Your task to perform on an android device: check battery use Image 0: 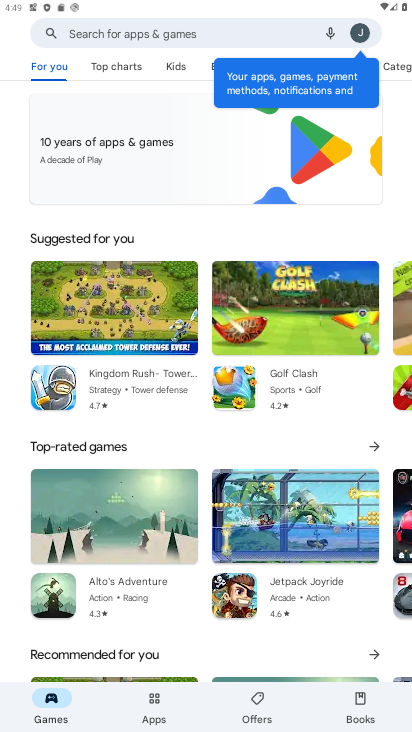
Step 0: press home button
Your task to perform on an android device: check battery use Image 1: 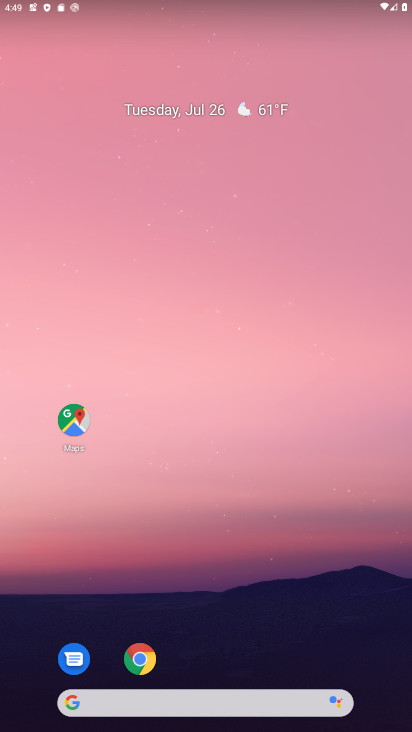
Step 1: drag from (272, 527) to (253, 93)
Your task to perform on an android device: check battery use Image 2: 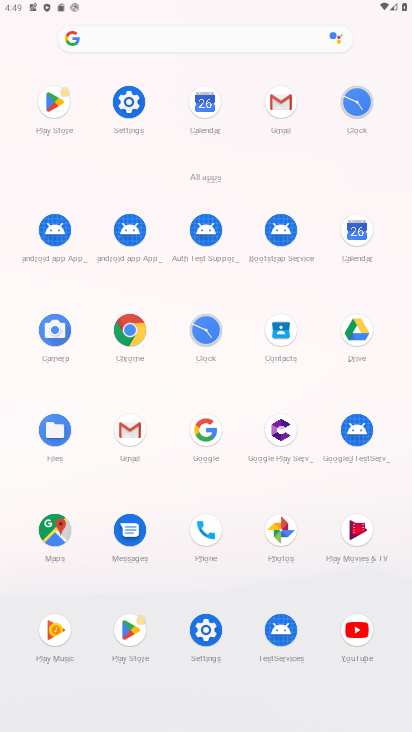
Step 2: click (134, 102)
Your task to perform on an android device: check battery use Image 3: 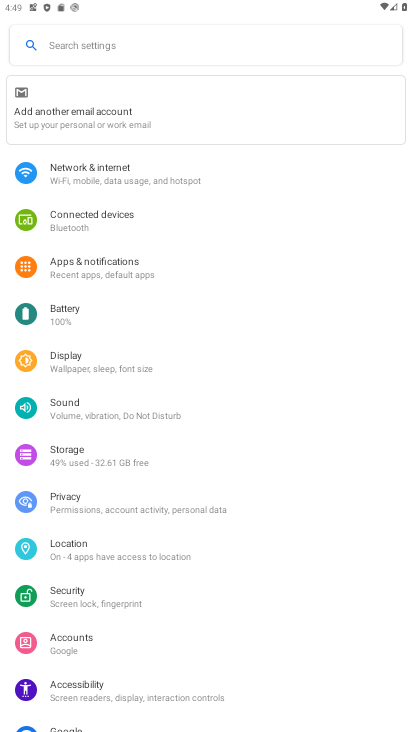
Step 3: click (79, 322)
Your task to perform on an android device: check battery use Image 4: 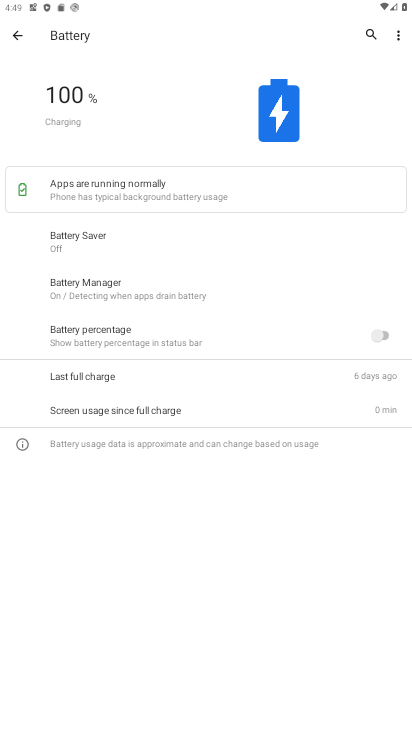
Step 4: task complete